Your task to perform on an android device: Open Wikipedia Image 0: 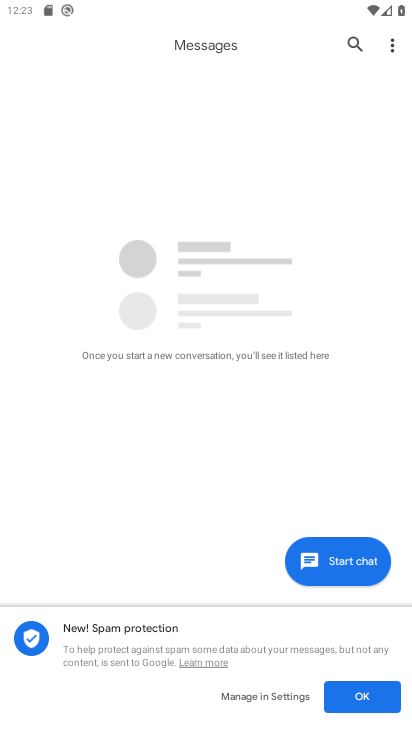
Step 0: press home button
Your task to perform on an android device: Open Wikipedia Image 1: 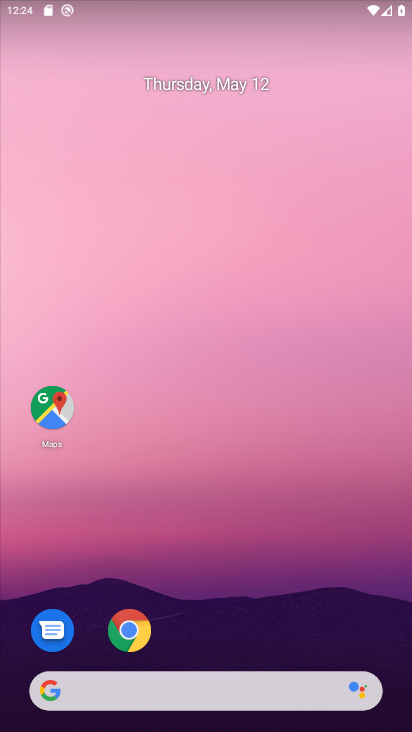
Step 1: drag from (216, 595) to (265, 232)
Your task to perform on an android device: Open Wikipedia Image 2: 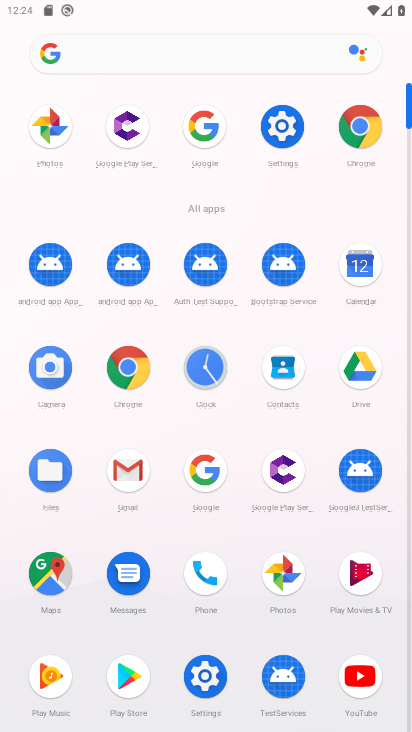
Step 2: click (132, 360)
Your task to perform on an android device: Open Wikipedia Image 3: 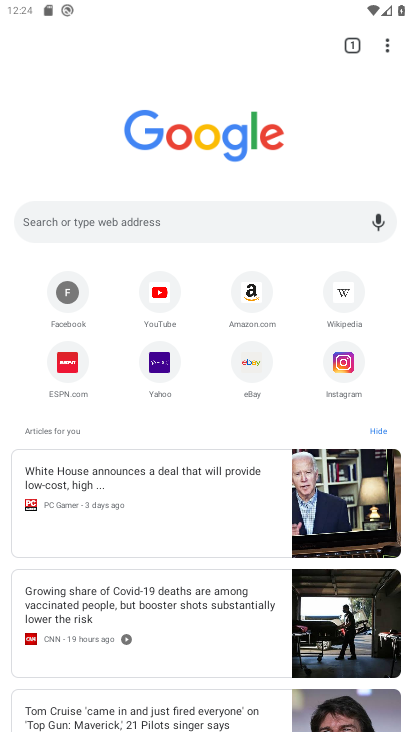
Step 3: click (340, 288)
Your task to perform on an android device: Open Wikipedia Image 4: 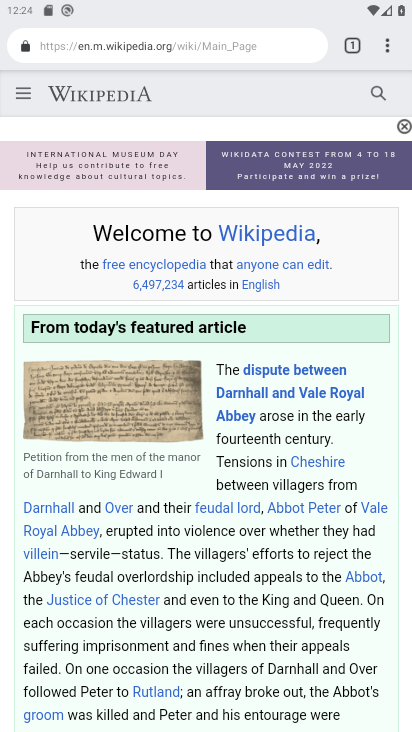
Step 4: task complete